Your task to perform on an android device: open device folders in google photos Image 0: 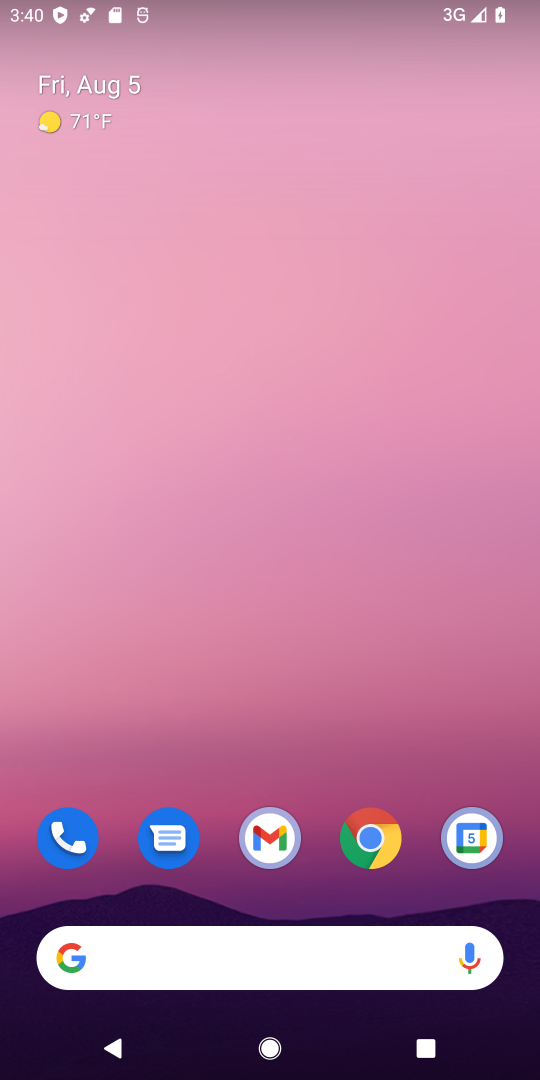
Step 0: drag from (440, 930) to (457, 181)
Your task to perform on an android device: open device folders in google photos Image 1: 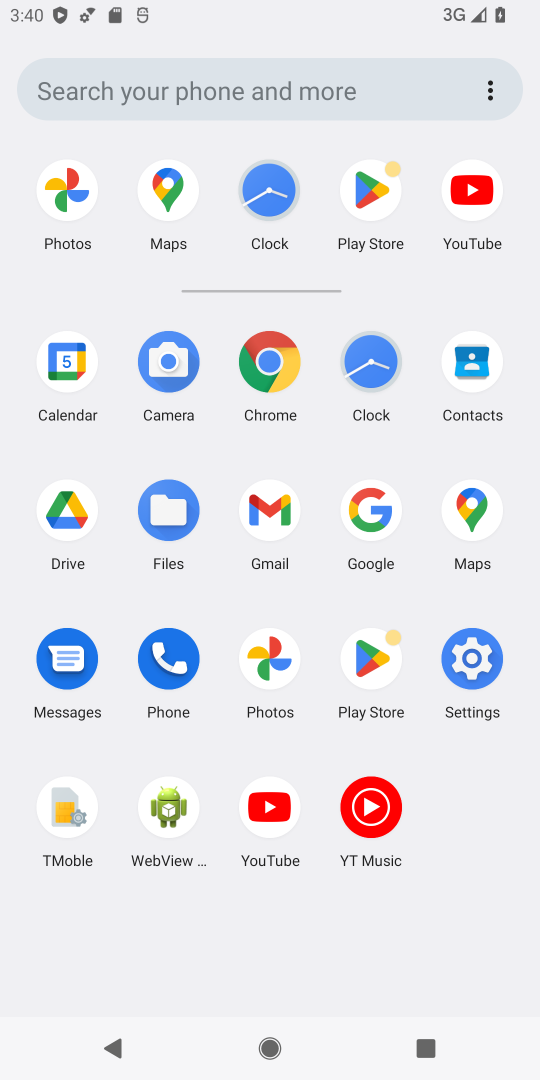
Step 1: click (271, 640)
Your task to perform on an android device: open device folders in google photos Image 2: 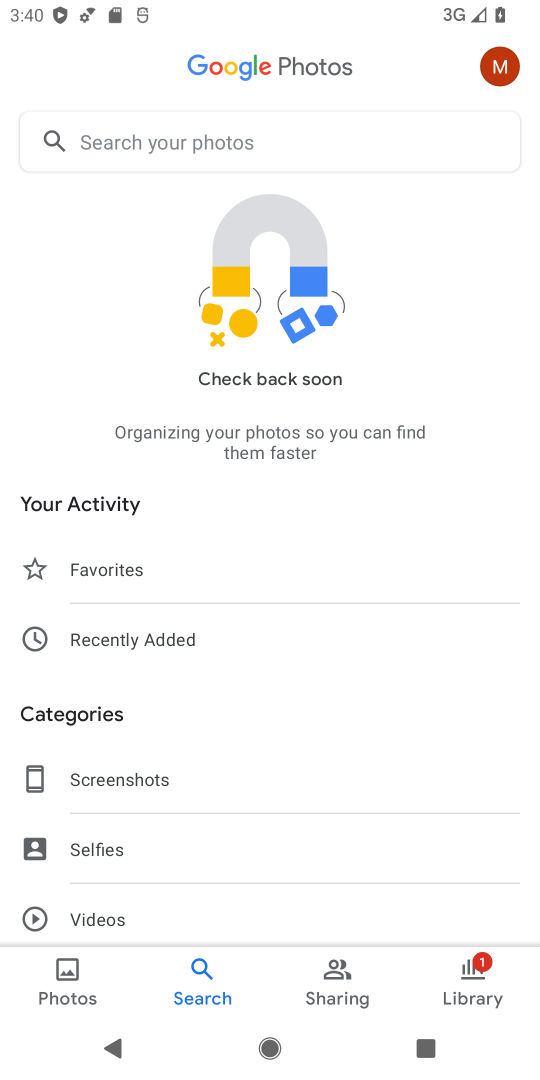
Step 2: press back button
Your task to perform on an android device: open device folders in google photos Image 3: 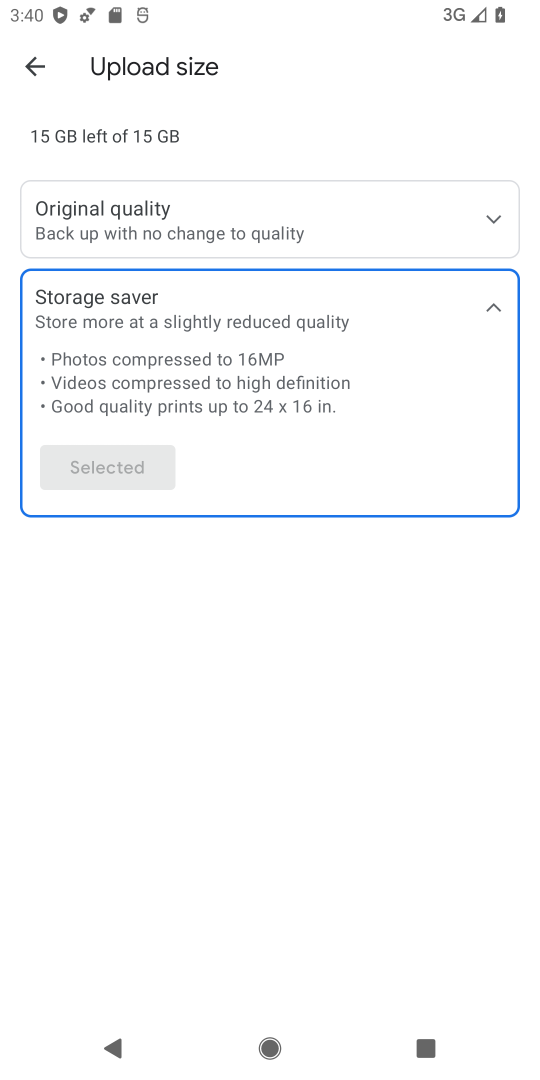
Step 3: click (23, 71)
Your task to perform on an android device: open device folders in google photos Image 4: 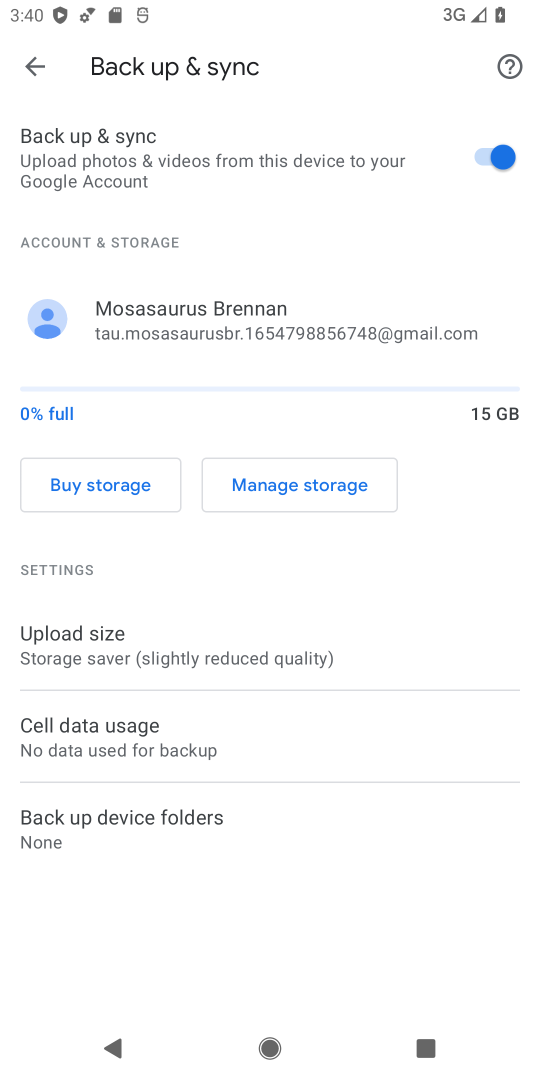
Step 4: click (48, 74)
Your task to perform on an android device: open device folders in google photos Image 5: 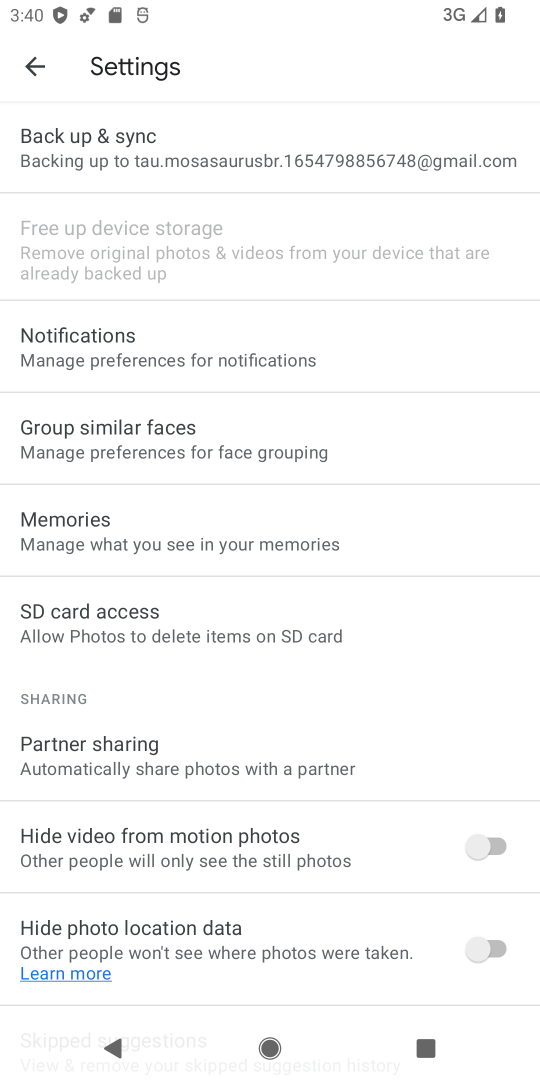
Step 5: click (35, 67)
Your task to perform on an android device: open device folders in google photos Image 6: 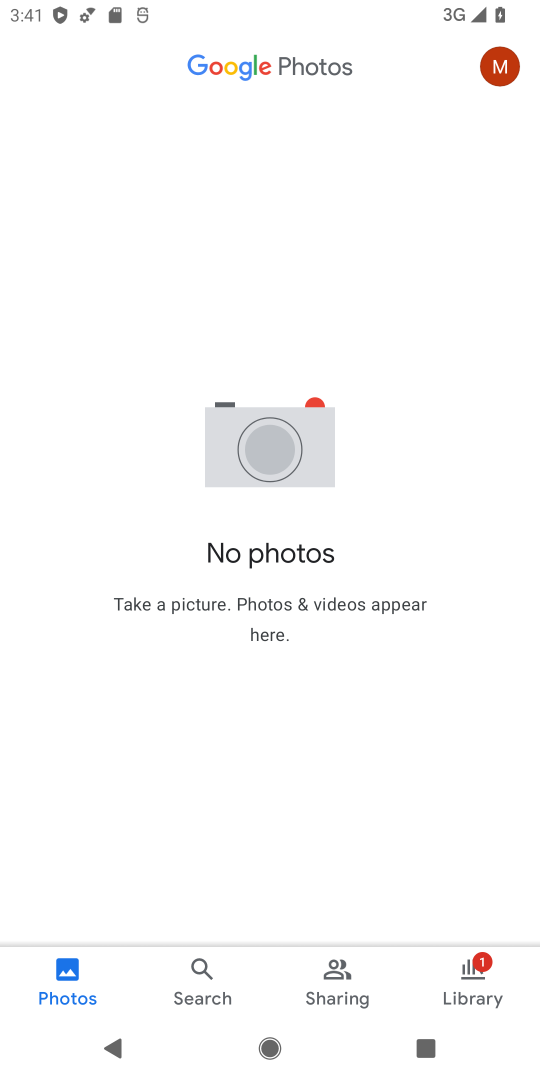
Step 6: task complete